Your task to perform on an android device: Open calendar and show me the first week of next month Image 0: 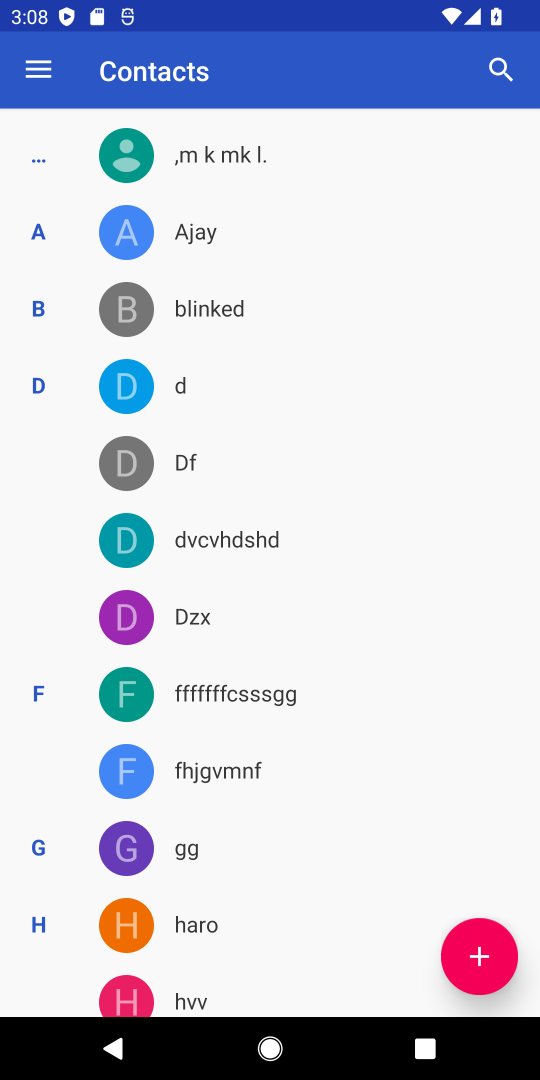
Step 0: press home button
Your task to perform on an android device: Open calendar and show me the first week of next month Image 1: 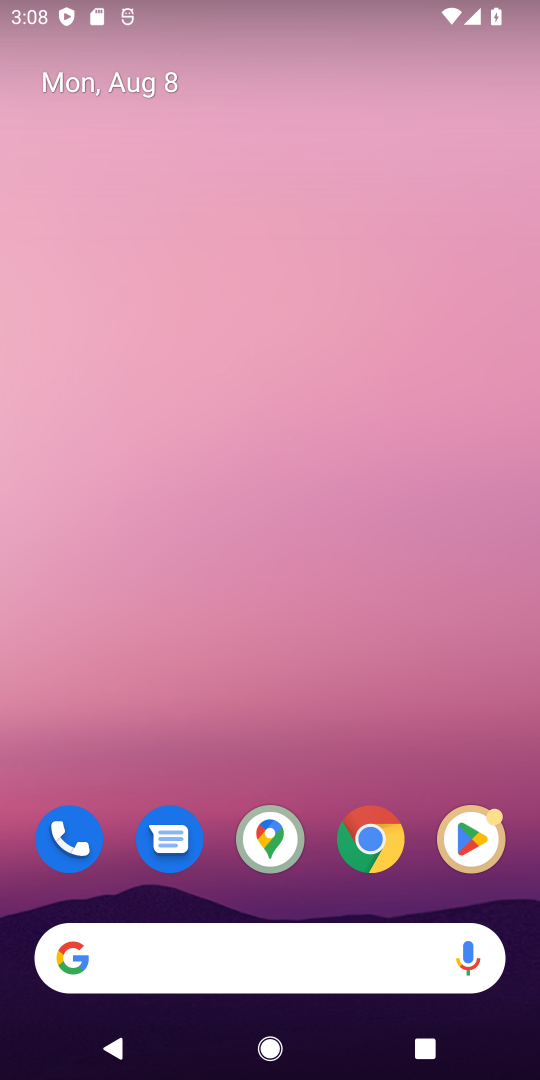
Step 1: drag from (310, 909) to (273, 172)
Your task to perform on an android device: Open calendar and show me the first week of next month Image 2: 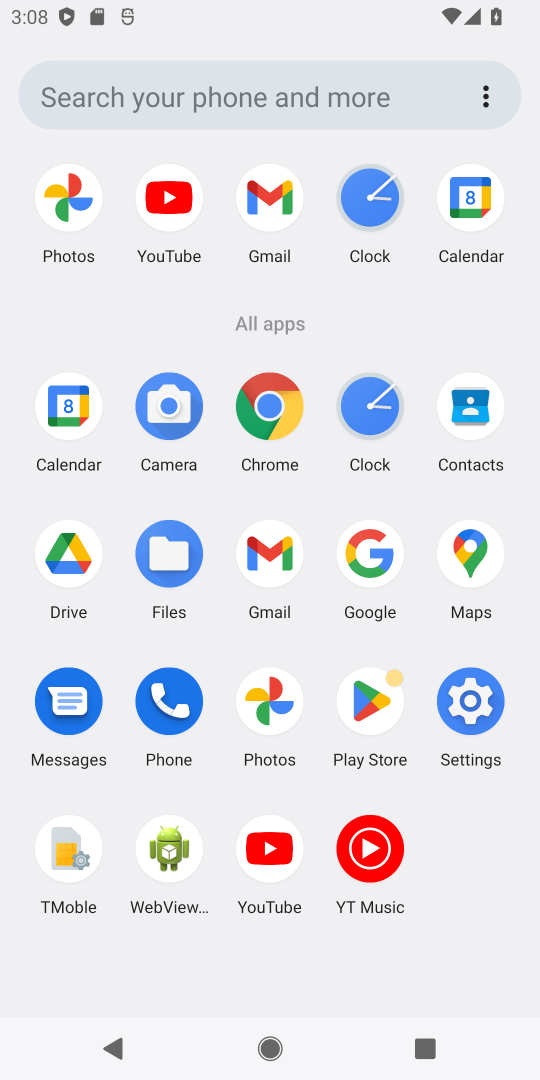
Step 2: click (66, 391)
Your task to perform on an android device: Open calendar and show me the first week of next month Image 3: 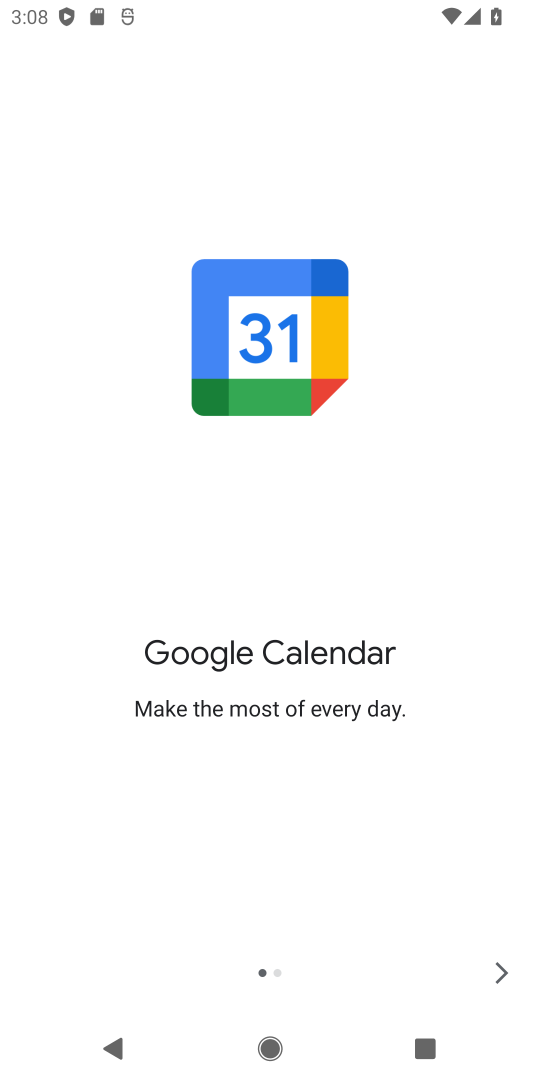
Step 3: click (499, 981)
Your task to perform on an android device: Open calendar and show me the first week of next month Image 4: 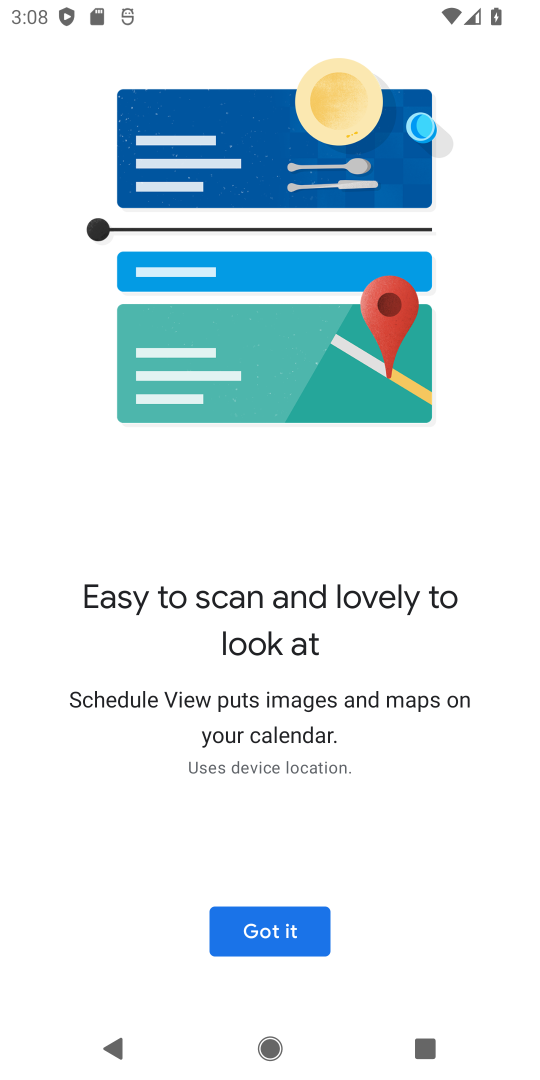
Step 4: click (295, 933)
Your task to perform on an android device: Open calendar and show me the first week of next month Image 5: 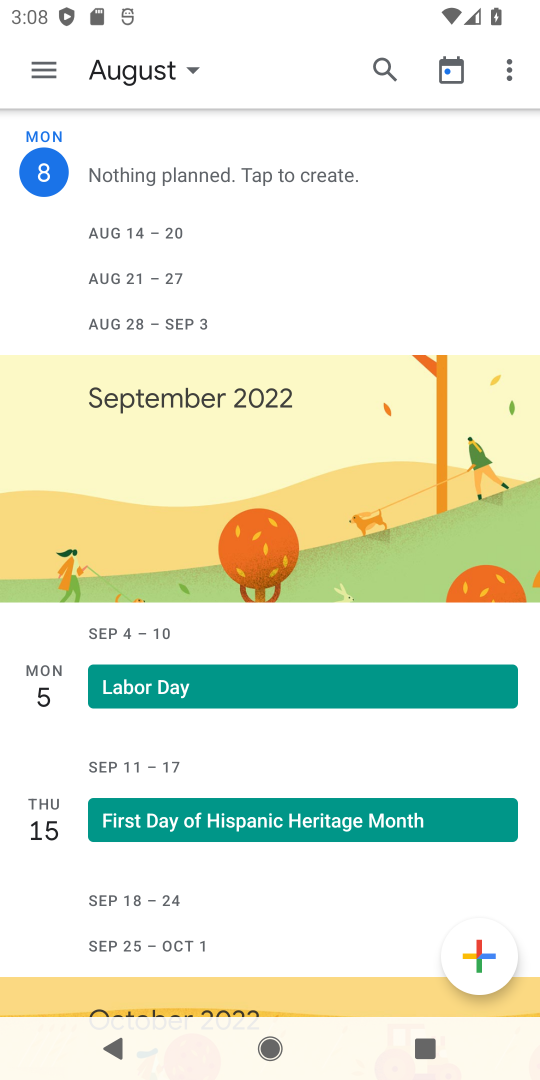
Step 5: click (37, 75)
Your task to perform on an android device: Open calendar and show me the first week of next month Image 6: 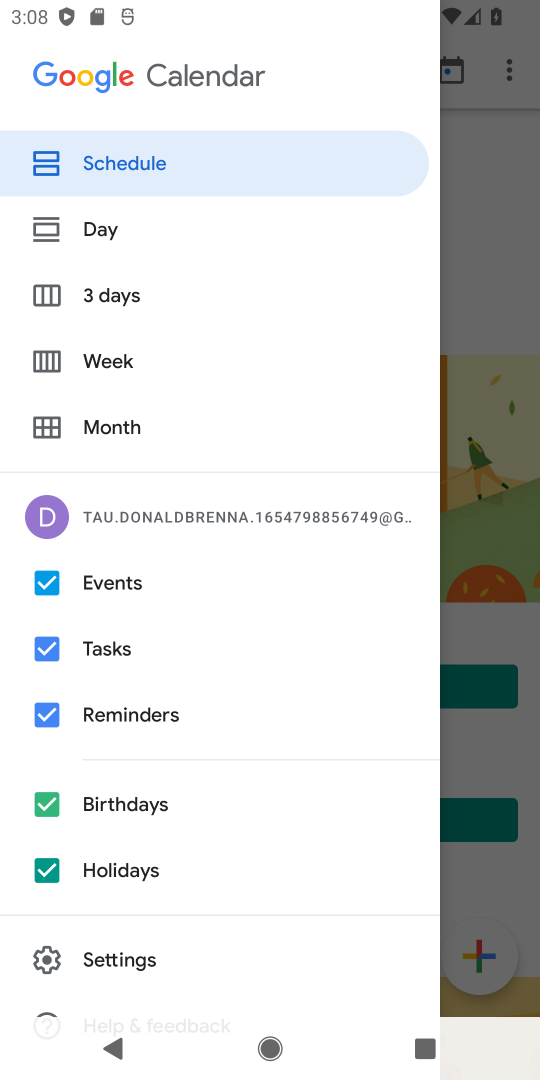
Step 6: click (140, 365)
Your task to perform on an android device: Open calendar and show me the first week of next month Image 7: 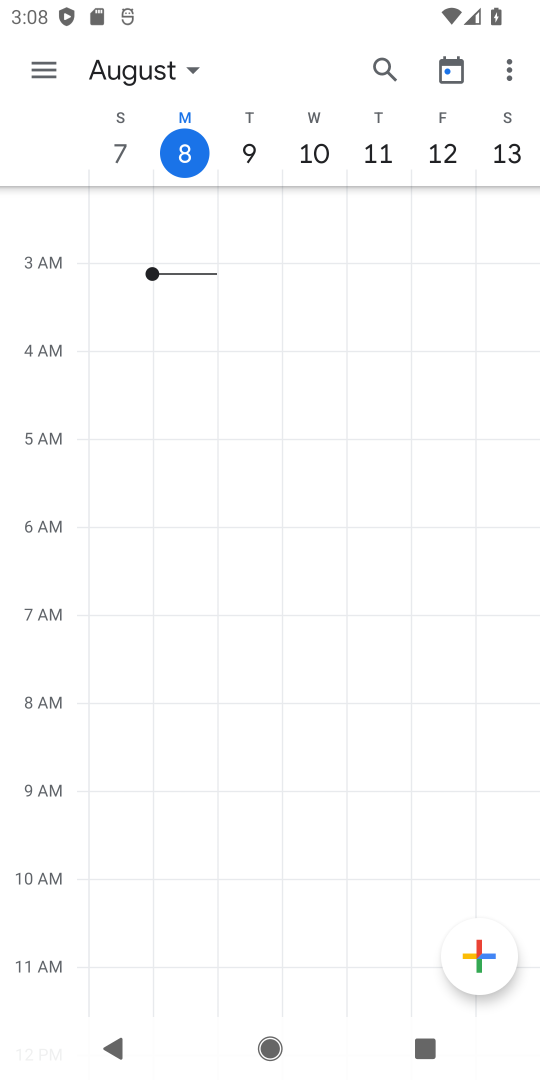
Step 7: task complete